Your task to perform on an android device: Turn on the flashlight Image 0: 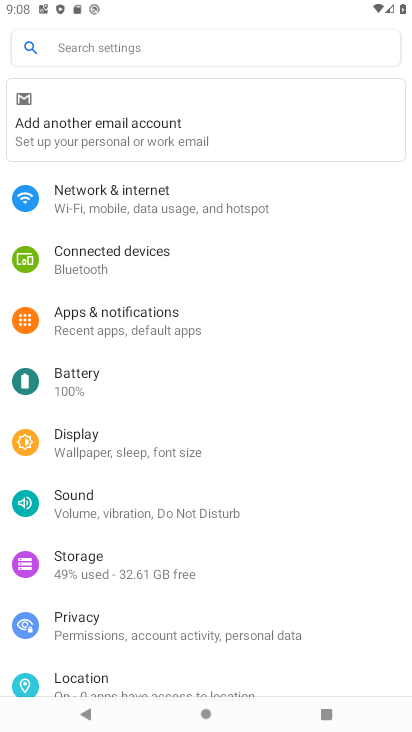
Step 0: click (91, 447)
Your task to perform on an android device: Turn on the flashlight Image 1: 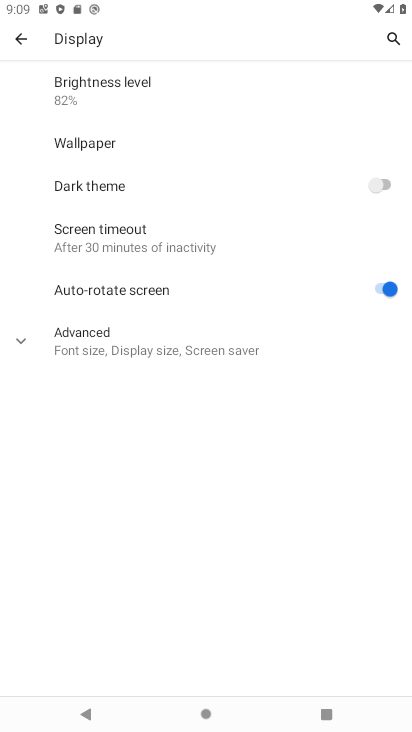
Step 1: task complete